Your task to perform on an android device: set the stopwatch Image 0: 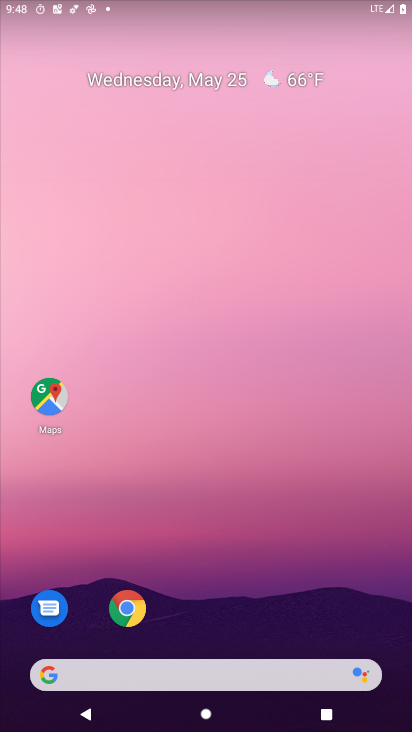
Step 0: drag from (220, 714) to (227, 213)
Your task to perform on an android device: set the stopwatch Image 1: 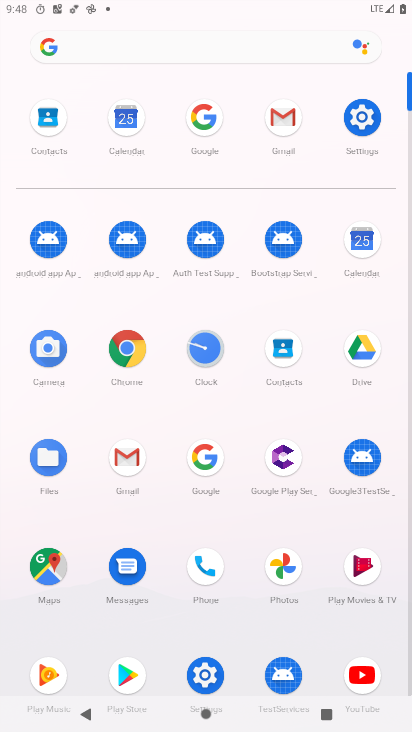
Step 1: click (203, 351)
Your task to perform on an android device: set the stopwatch Image 2: 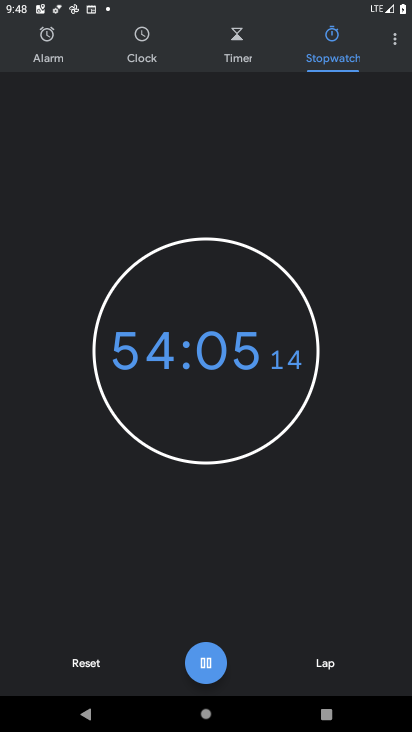
Step 2: click (184, 390)
Your task to perform on an android device: set the stopwatch Image 3: 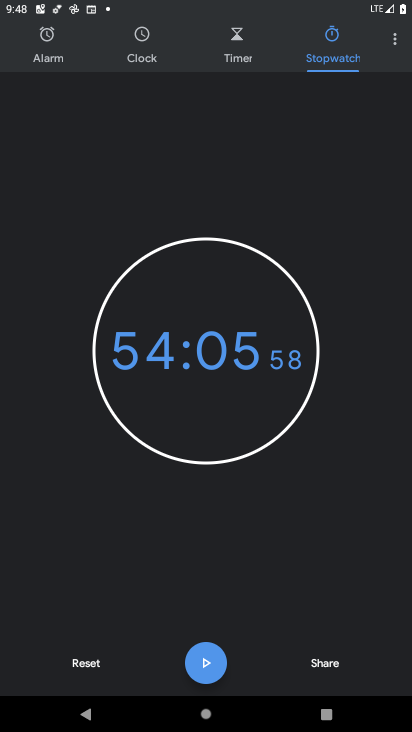
Step 3: click (84, 661)
Your task to perform on an android device: set the stopwatch Image 4: 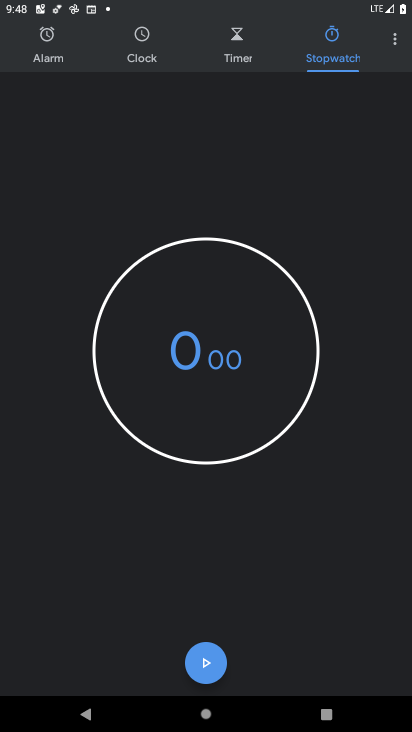
Step 4: type "7777"
Your task to perform on an android device: set the stopwatch Image 5: 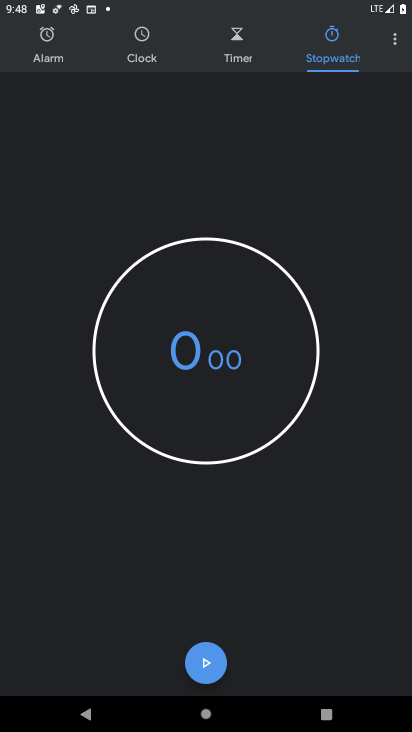
Step 5: click (194, 370)
Your task to perform on an android device: set the stopwatch Image 6: 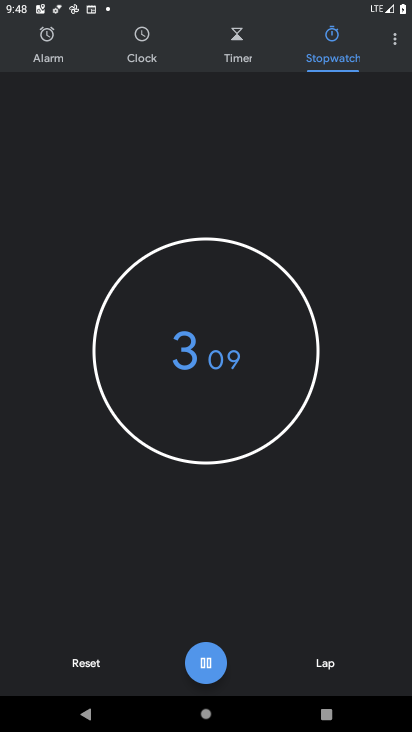
Step 6: type "77"
Your task to perform on an android device: set the stopwatch Image 7: 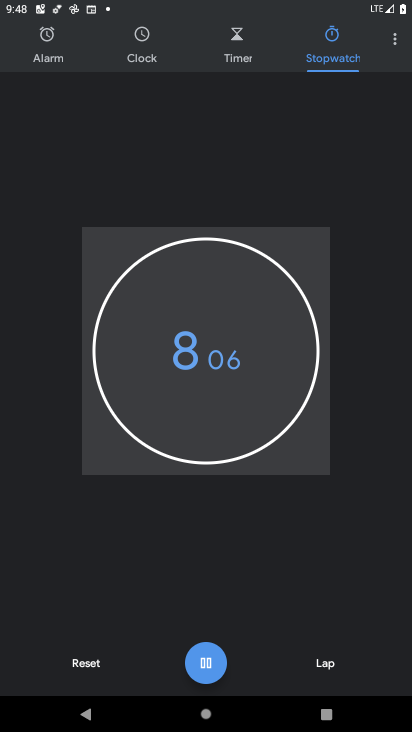
Step 7: task complete